Your task to perform on an android device: What's the weather going to be tomorrow? Image 0: 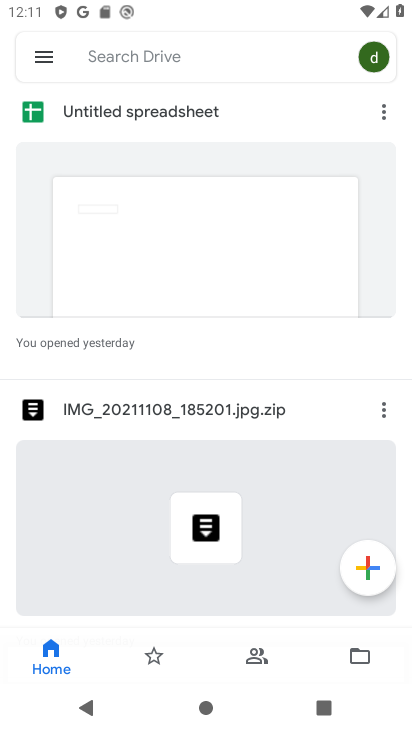
Step 0: press home button
Your task to perform on an android device: What's the weather going to be tomorrow? Image 1: 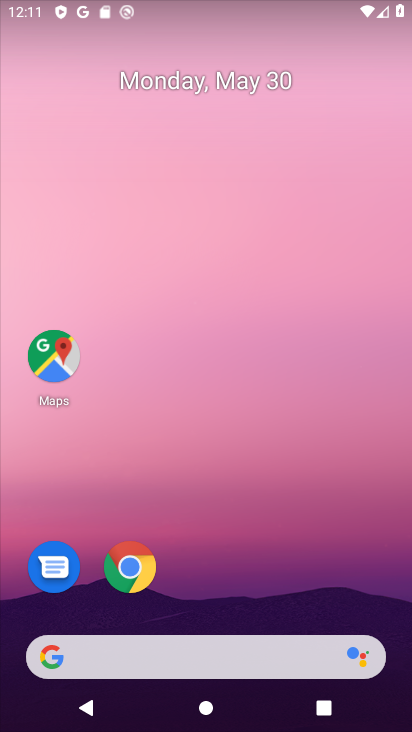
Step 1: drag from (227, 604) to (215, 0)
Your task to perform on an android device: What's the weather going to be tomorrow? Image 2: 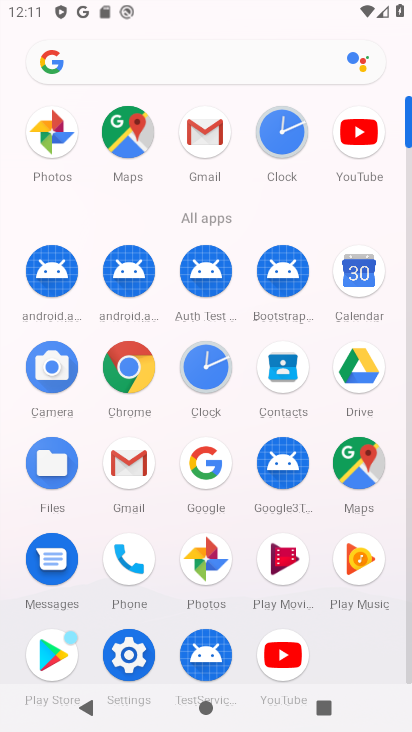
Step 2: press back button
Your task to perform on an android device: What's the weather going to be tomorrow? Image 3: 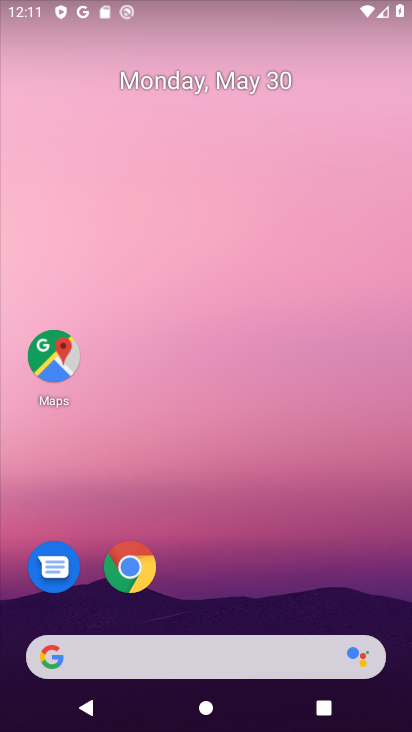
Step 3: drag from (11, 225) to (387, 225)
Your task to perform on an android device: What's the weather going to be tomorrow? Image 4: 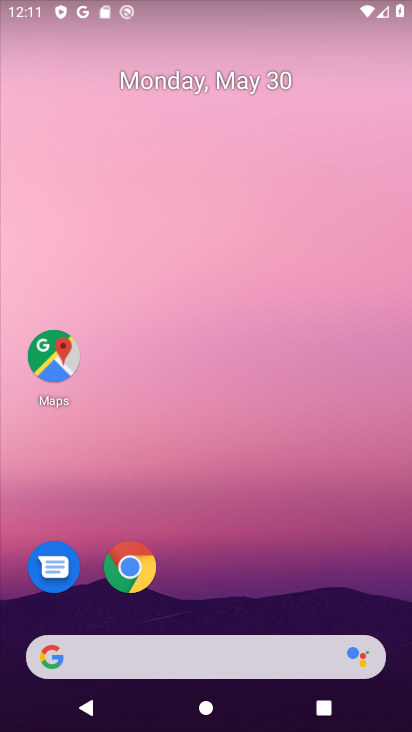
Step 4: drag from (6, 269) to (399, 290)
Your task to perform on an android device: What's the weather going to be tomorrow? Image 5: 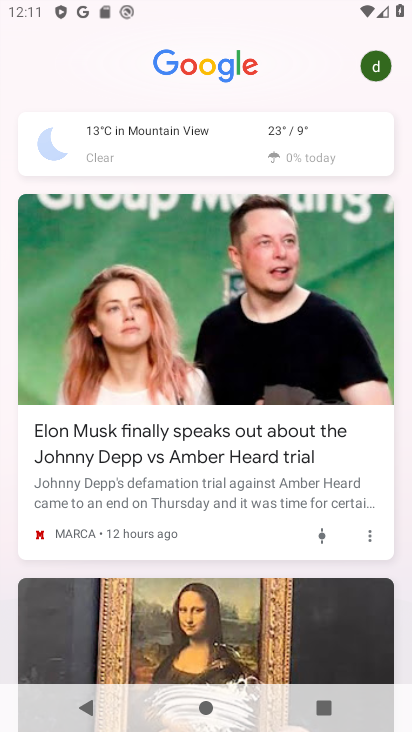
Step 5: click (282, 130)
Your task to perform on an android device: What's the weather going to be tomorrow? Image 6: 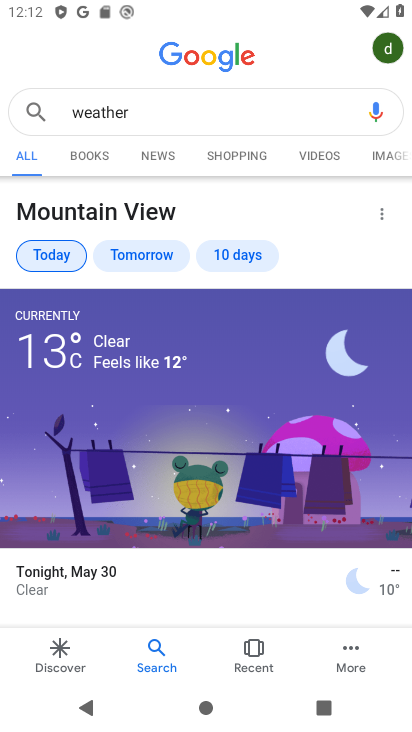
Step 6: click (150, 253)
Your task to perform on an android device: What's the weather going to be tomorrow? Image 7: 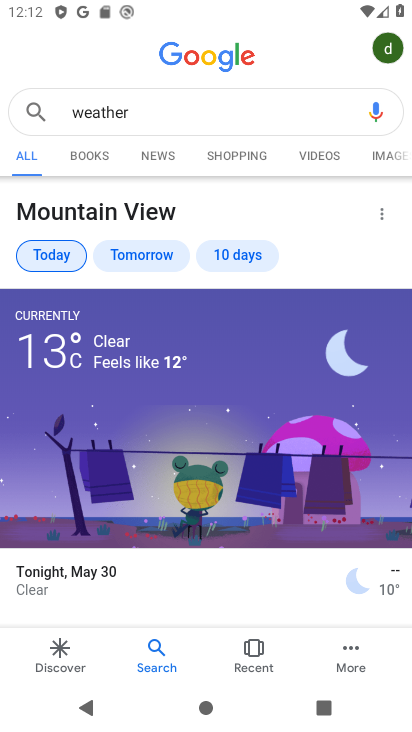
Step 7: drag from (193, 539) to (229, 219)
Your task to perform on an android device: What's the weather going to be tomorrow? Image 8: 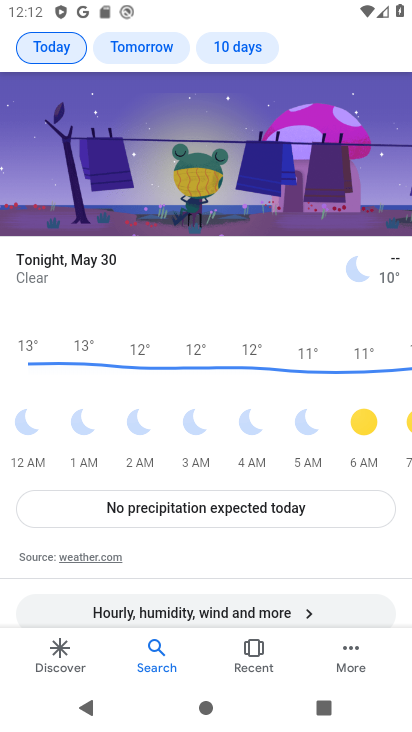
Step 8: click (221, 518)
Your task to perform on an android device: What's the weather going to be tomorrow? Image 9: 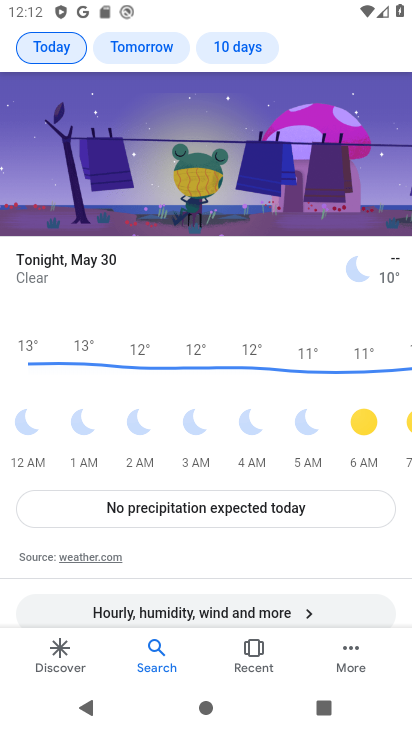
Step 9: click (213, 443)
Your task to perform on an android device: What's the weather going to be tomorrow? Image 10: 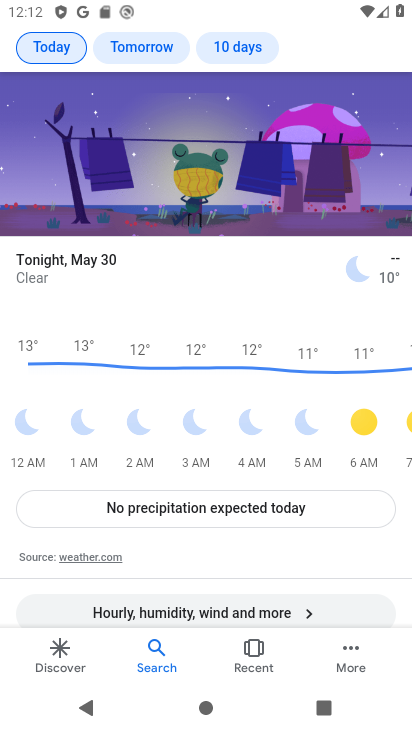
Step 10: click (124, 39)
Your task to perform on an android device: What's the weather going to be tomorrow? Image 11: 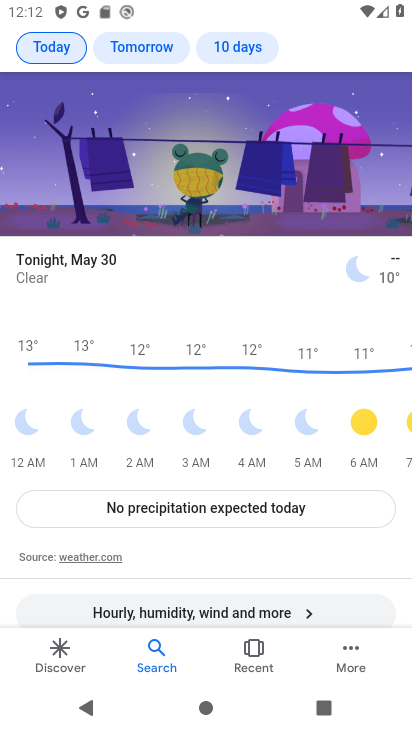
Step 11: click (139, 50)
Your task to perform on an android device: What's the weather going to be tomorrow? Image 12: 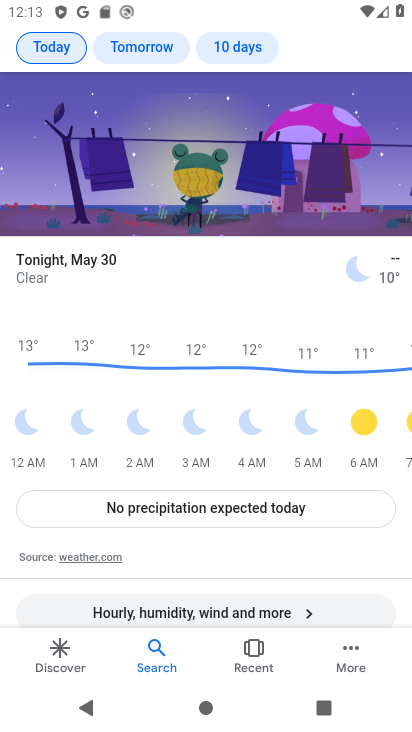
Step 12: task complete